Your task to perform on an android device: change keyboard looks Image 0: 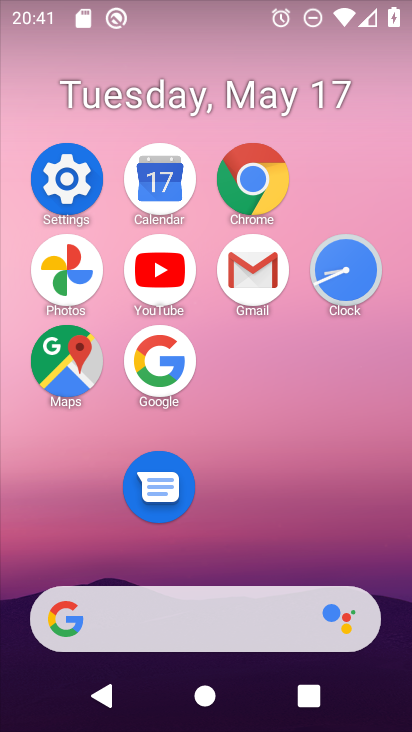
Step 0: click (67, 186)
Your task to perform on an android device: change keyboard looks Image 1: 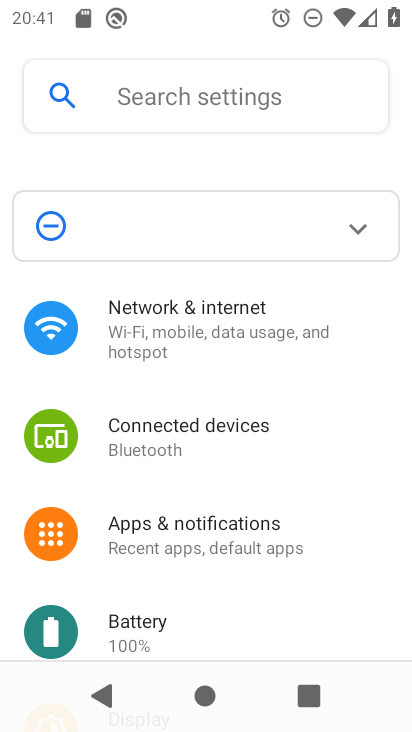
Step 1: drag from (263, 601) to (229, 199)
Your task to perform on an android device: change keyboard looks Image 2: 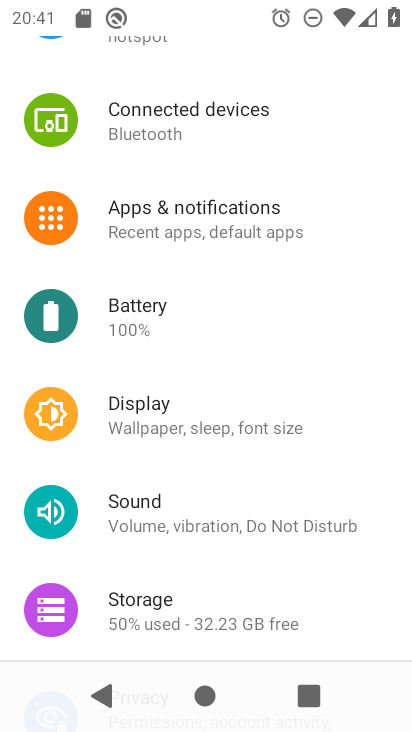
Step 2: drag from (299, 570) to (279, 197)
Your task to perform on an android device: change keyboard looks Image 3: 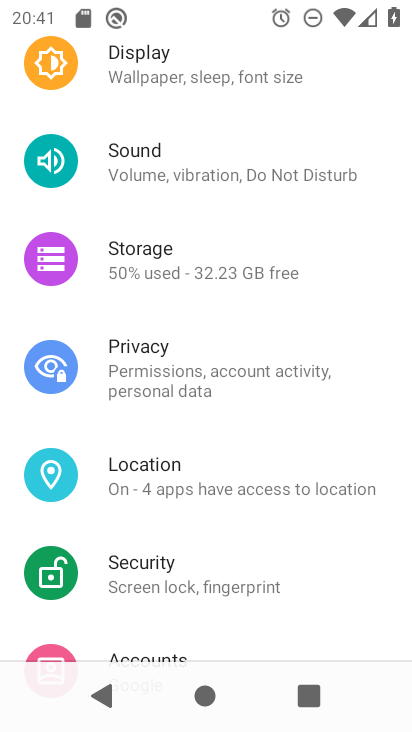
Step 3: drag from (305, 608) to (296, 251)
Your task to perform on an android device: change keyboard looks Image 4: 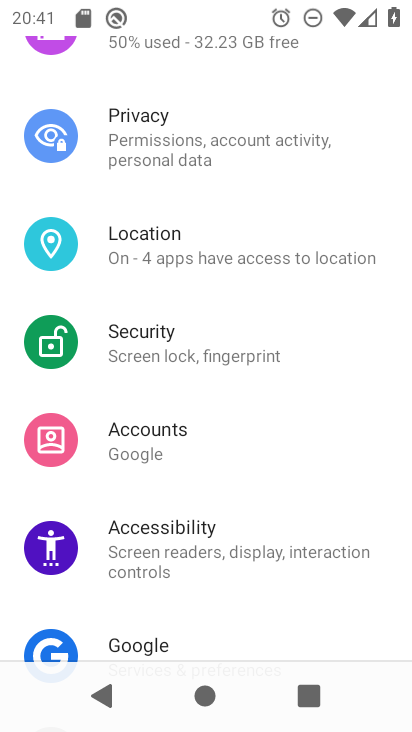
Step 4: drag from (275, 613) to (269, 228)
Your task to perform on an android device: change keyboard looks Image 5: 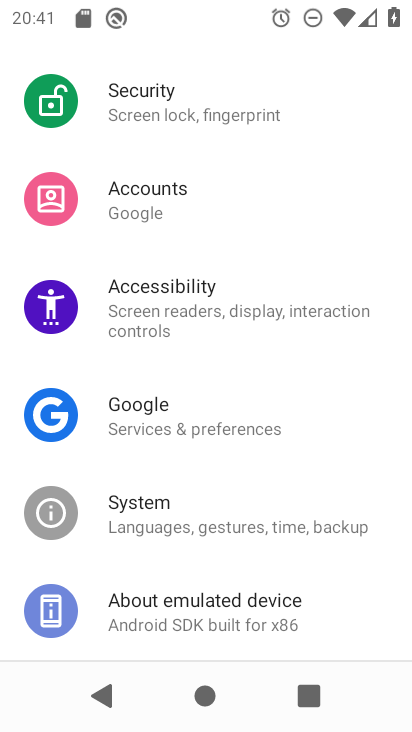
Step 5: click (243, 535)
Your task to perform on an android device: change keyboard looks Image 6: 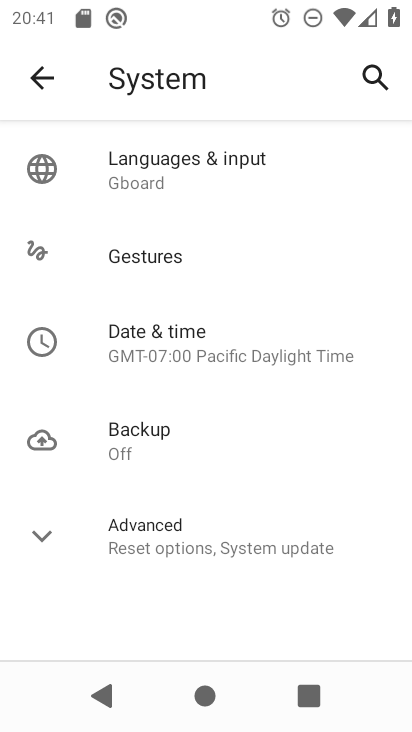
Step 6: click (156, 170)
Your task to perform on an android device: change keyboard looks Image 7: 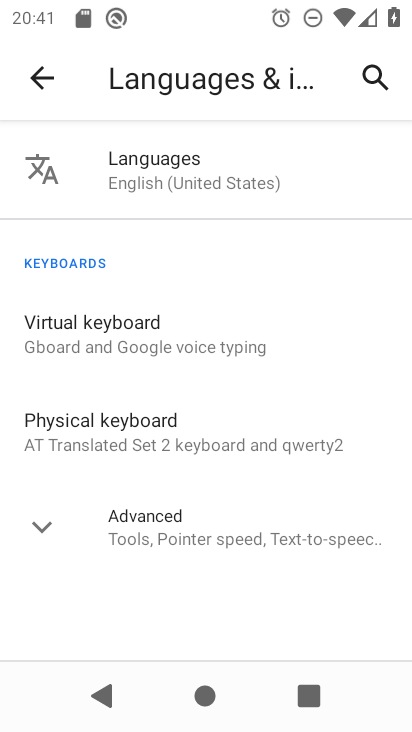
Step 7: click (172, 346)
Your task to perform on an android device: change keyboard looks Image 8: 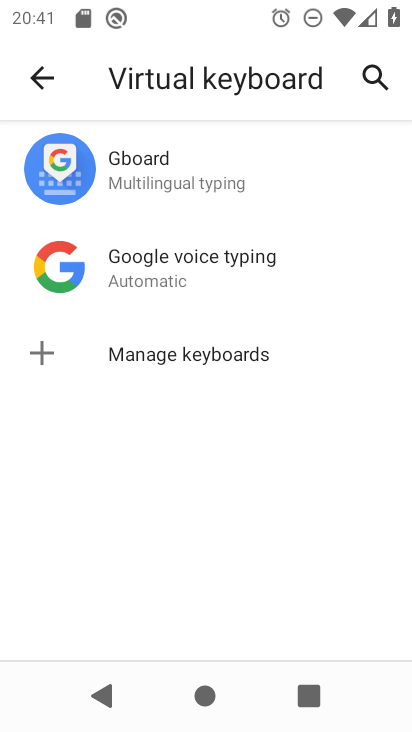
Step 8: click (185, 199)
Your task to perform on an android device: change keyboard looks Image 9: 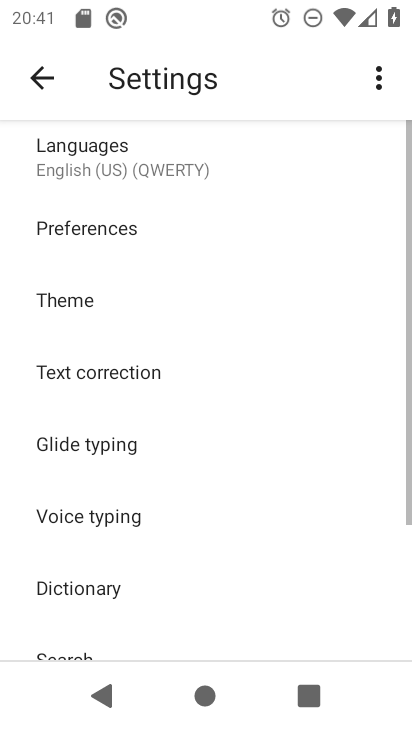
Step 9: click (192, 311)
Your task to perform on an android device: change keyboard looks Image 10: 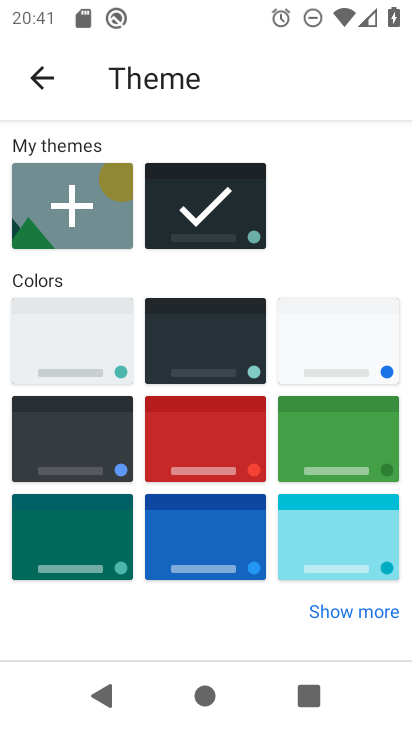
Step 10: click (121, 367)
Your task to perform on an android device: change keyboard looks Image 11: 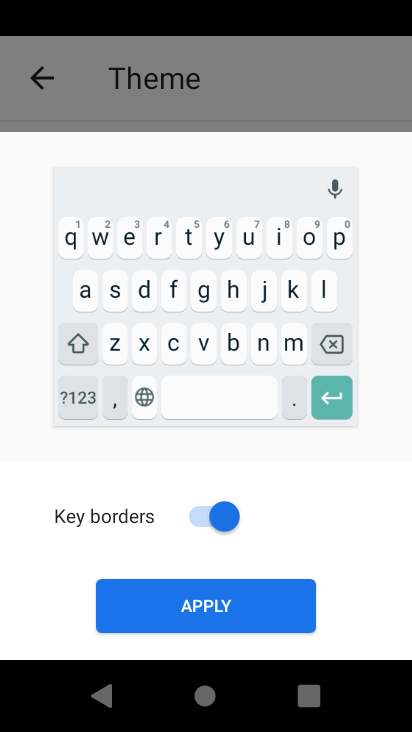
Step 11: click (230, 612)
Your task to perform on an android device: change keyboard looks Image 12: 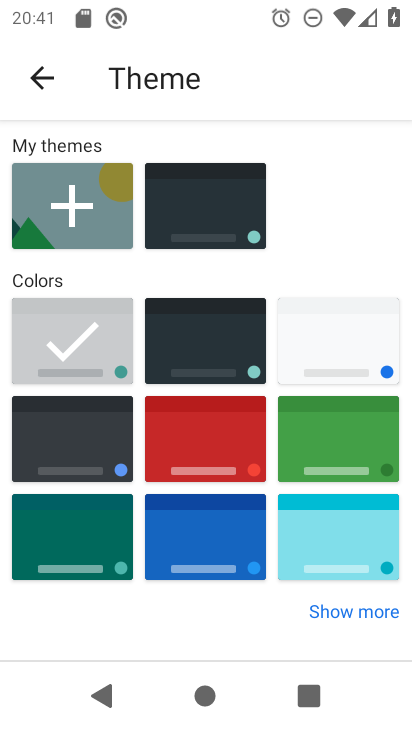
Step 12: task complete